Your task to perform on an android device: Go to Wikipedia Image 0: 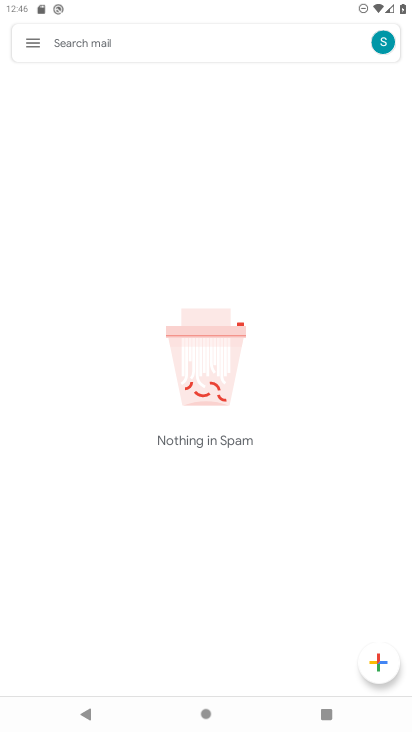
Step 0: press home button
Your task to perform on an android device: Go to Wikipedia Image 1: 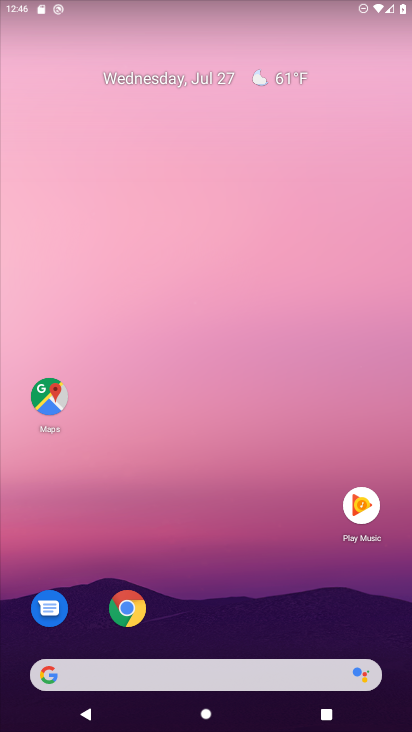
Step 1: drag from (260, 624) to (283, 185)
Your task to perform on an android device: Go to Wikipedia Image 2: 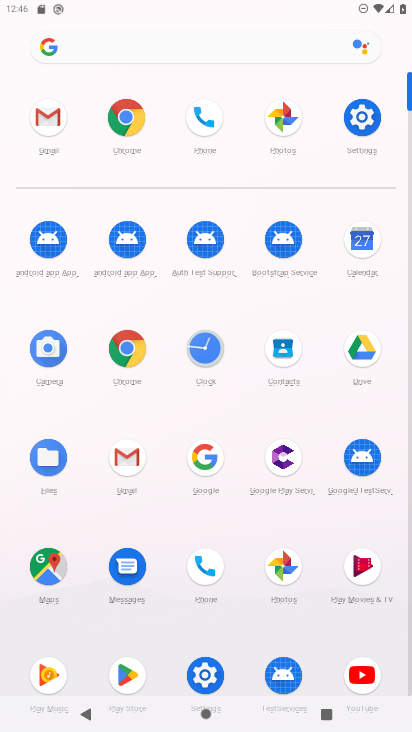
Step 2: click (128, 352)
Your task to perform on an android device: Go to Wikipedia Image 3: 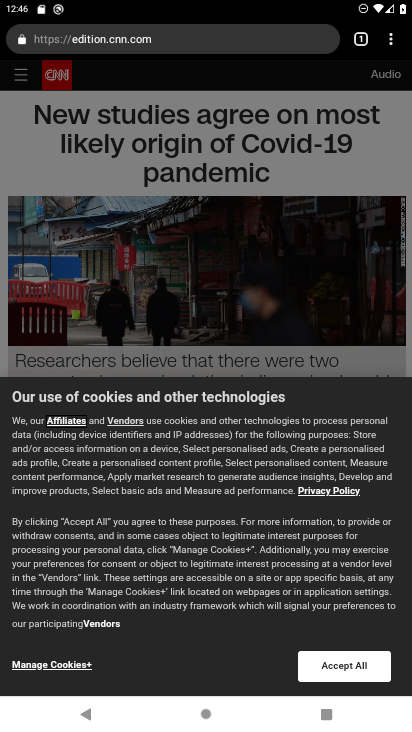
Step 3: click (243, 43)
Your task to perform on an android device: Go to Wikipedia Image 4: 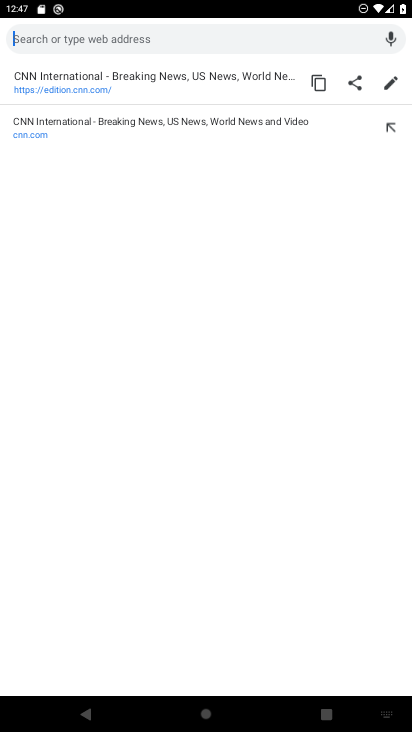
Step 4: type "wikipedia"
Your task to perform on an android device: Go to Wikipedia Image 5: 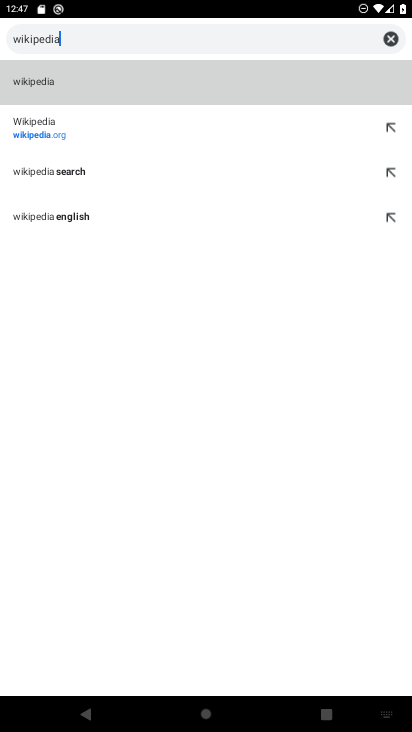
Step 5: click (95, 130)
Your task to perform on an android device: Go to Wikipedia Image 6: 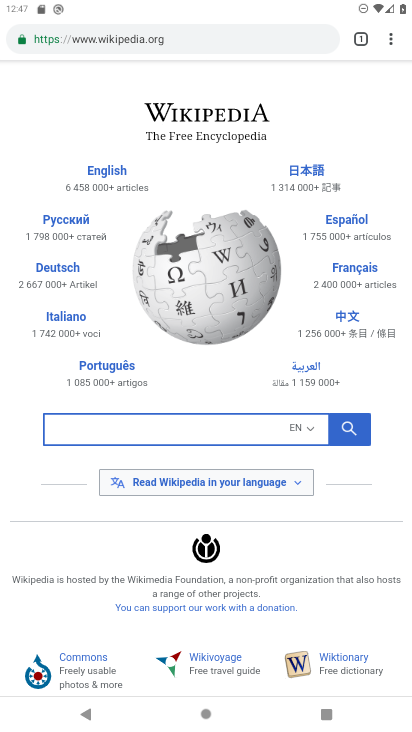
Step 6: task complete